Your task to perform on an android device: move a message to another label in the gmail app Image 0: 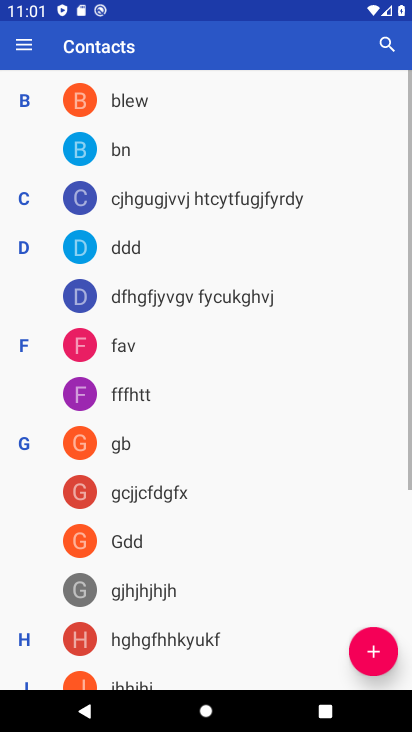
Step 0: press home button
Your task to perform on an android device: move a message to another label in the gmail app Image 1: 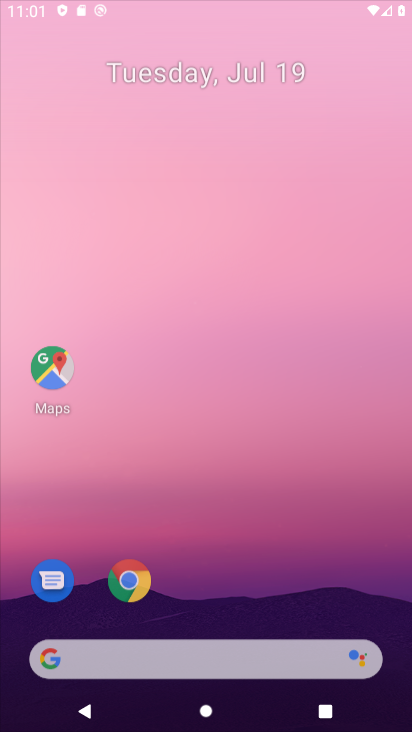
Step 1: drag from (389, 670) to (191, 60)
Your task to perform on an android device: move a message to another label in the gmail app Image 2: 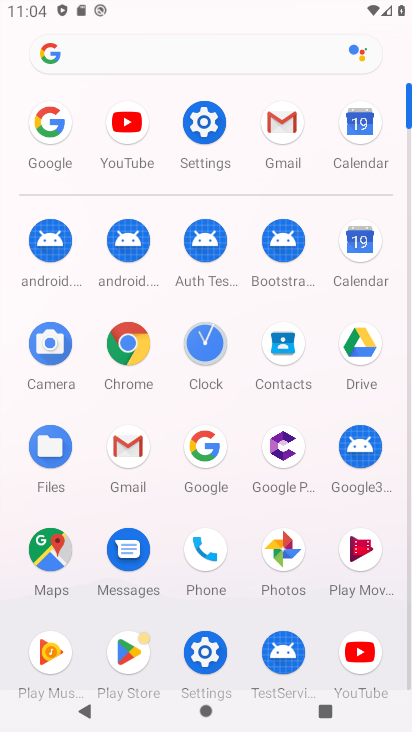
Step 2: click (136, 452)
Your task to perform on an android device: move a message to another label in the gmail app Image 3: 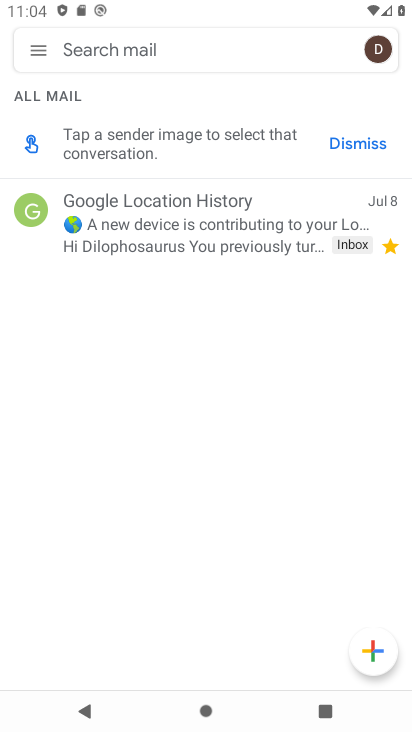
Step 3: task complete